Your task to perform on an android device: Open the map Image 0: 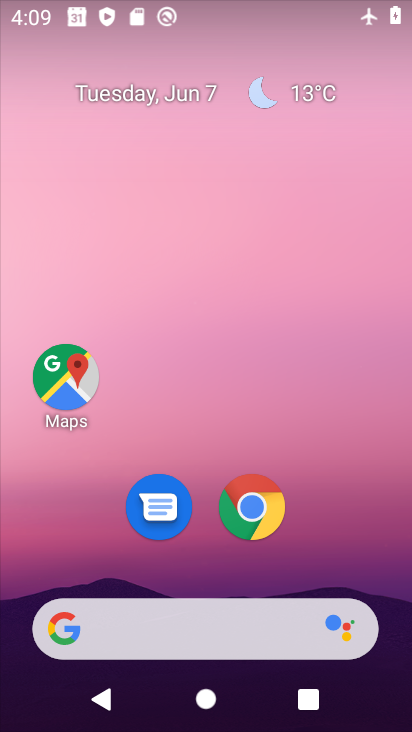
Step 0: drag from (358, 588) to (273, 32)
Your task to perform on an android device: Open the map Image 1: 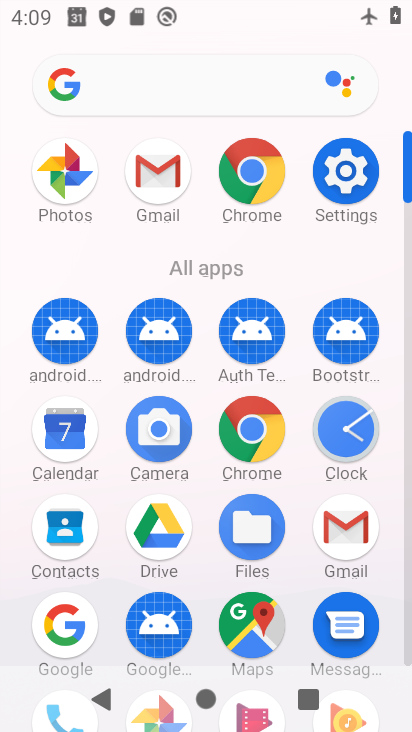
Step 1: drag from (13, 583) to (12, 225)
Your task to perform on an android device: Open the map Image 2: 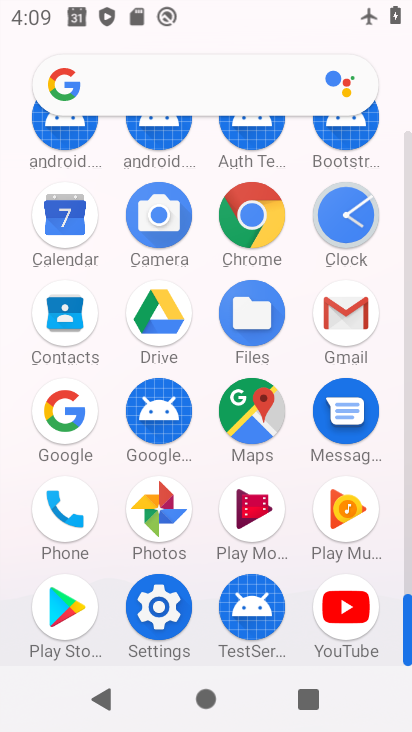
Step 2: click (252, 413)
Your task to perform on an android device: Open the map Image 3: 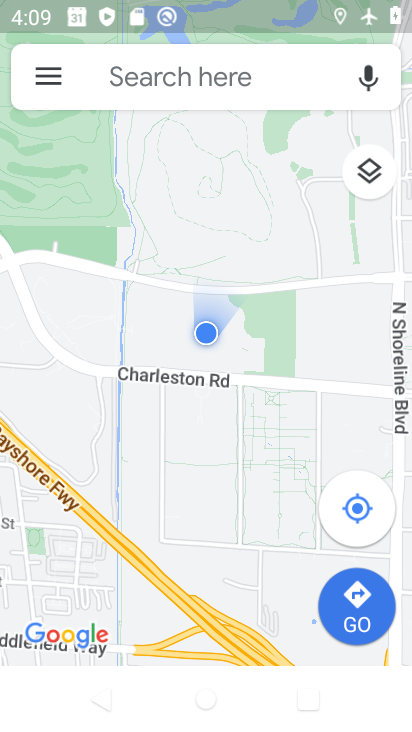
Step 3: task complete